Your task to perform on an android device: Open Google Maps Image 0: 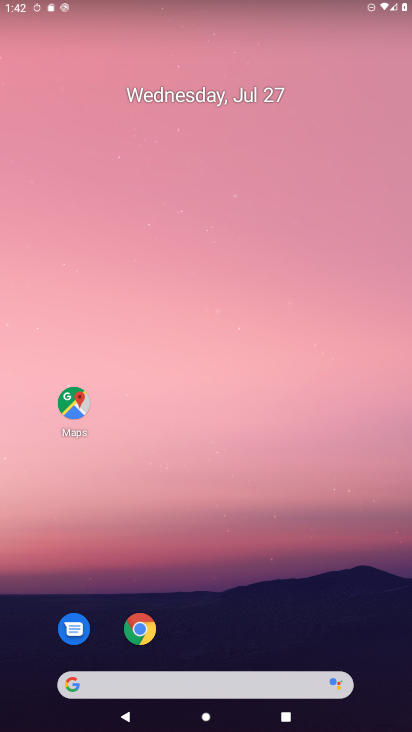
Step 0: press home button
Your task to perform on an android device: Open Google Maps Image 1: 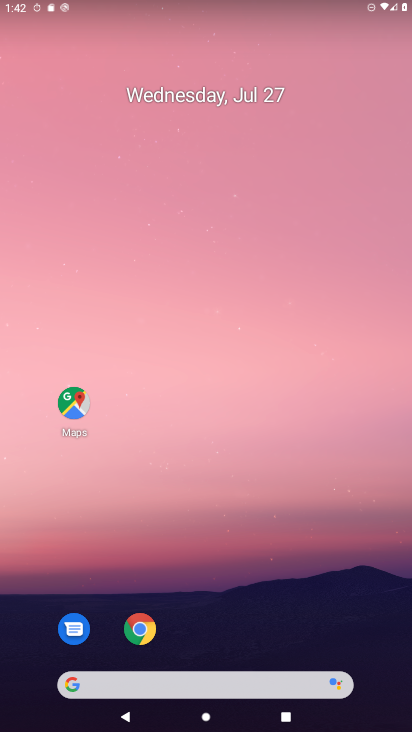
Step 1: drag from (265, 648) to (400, 20)
Your task to perform on an android device: Open Google Maps Image 2: 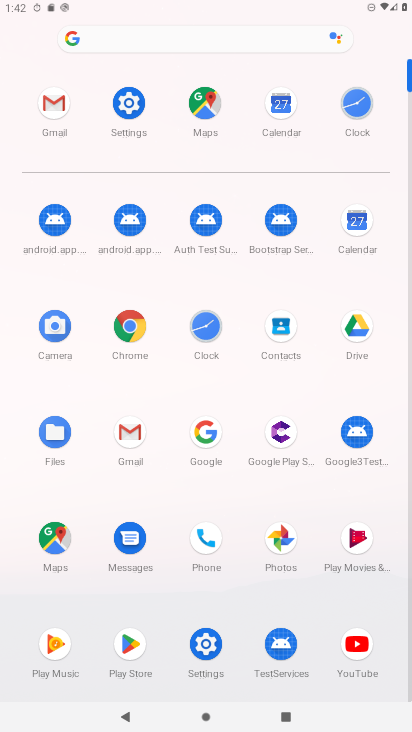
Step 2: click (202, 101)
Your task to perform on an android device: Open Google Maps Image 3: 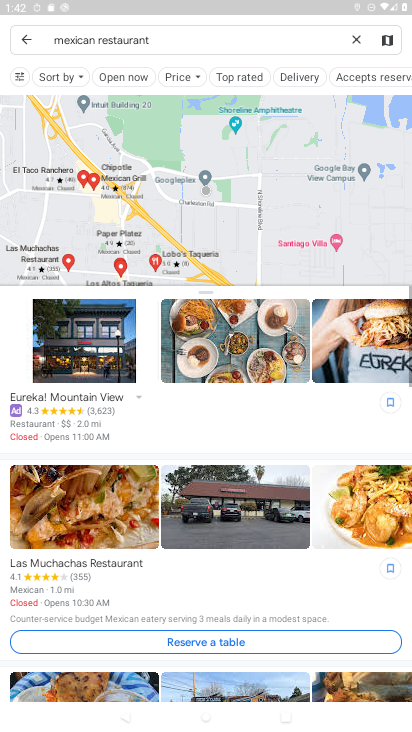
Step 3: click (25, 33)
Your task to perform on an android device: Open Google Maps Image 4: 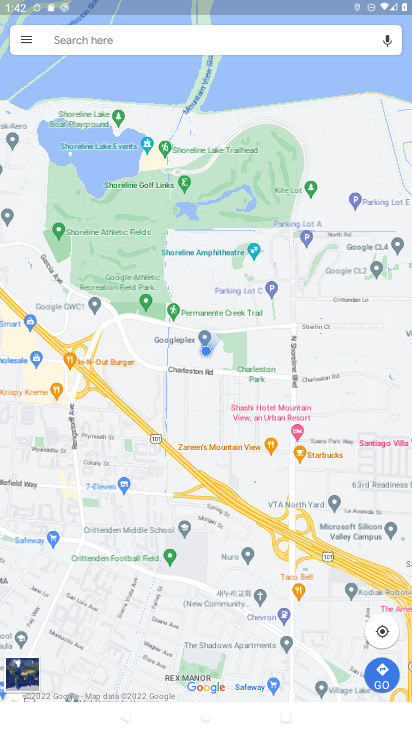
Step 4: task complete